Your task to perform on an android device: turn off data saver in the chrome app Image 0: 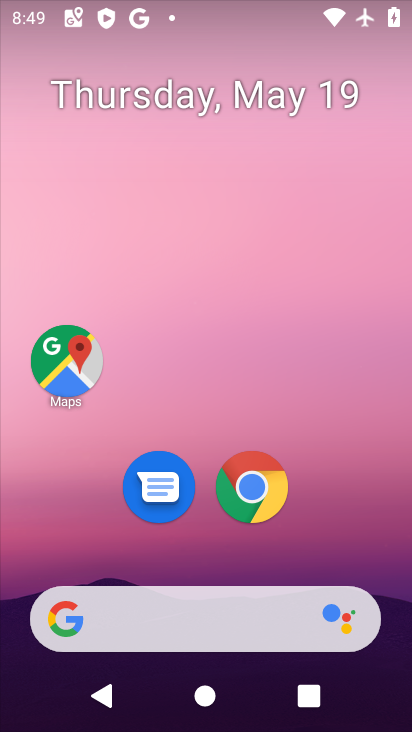
Step 0: click (231, 491)
Your task to perform on an android device: turn off data saver in the chrome app Image 1: 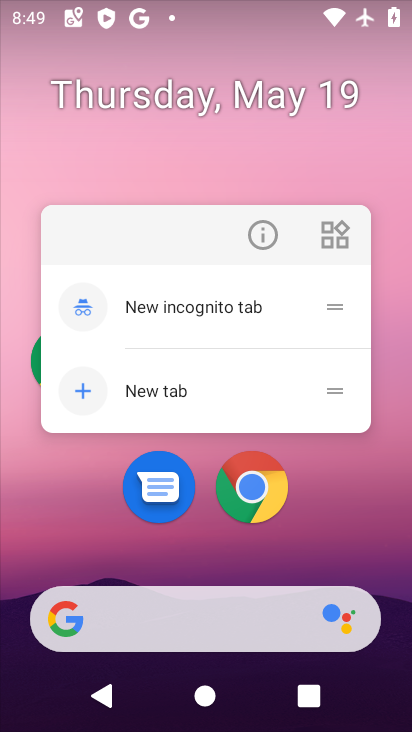
Step 1: click (251, 495)
Your task to perform on an android device: turn off data saver in the chrome app Image 2: 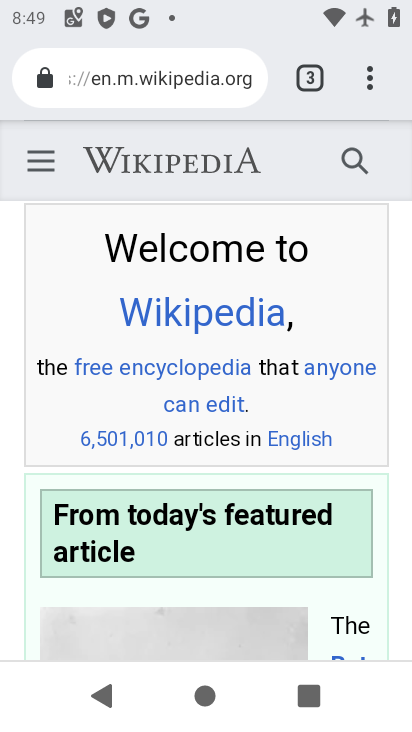
Step 2: click (371, 92)
Your task to perform on an android device: turn off data saver in the chrome app Image 3: 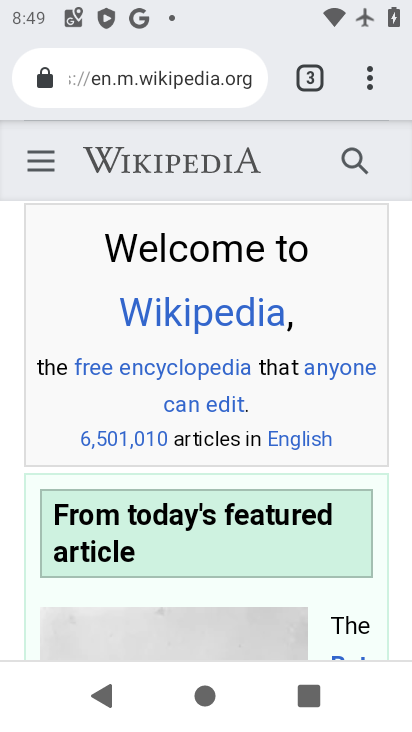
Step 3: drag from (366, 75) to (70, 553)
Your task to perform on an android device: turn off data saver in the chrome app Image 4: 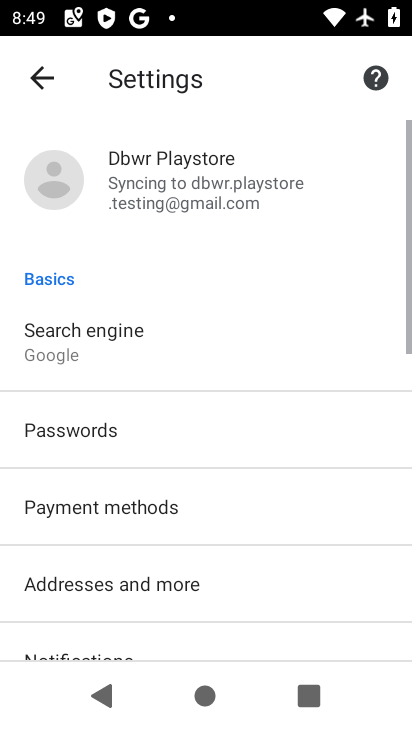
Step 4: drag from (245, 561) to (227, 106)
Your task to perform on an android device: turn off data saver in the chrome app Image 5: 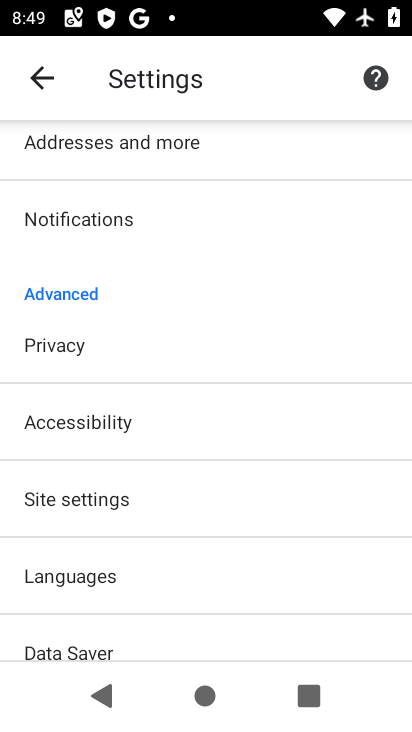
Step 5: drag from (133, 576) to (121, 434)
Your task to perform on an android device: turn off data saver in the chrome app Image 6: 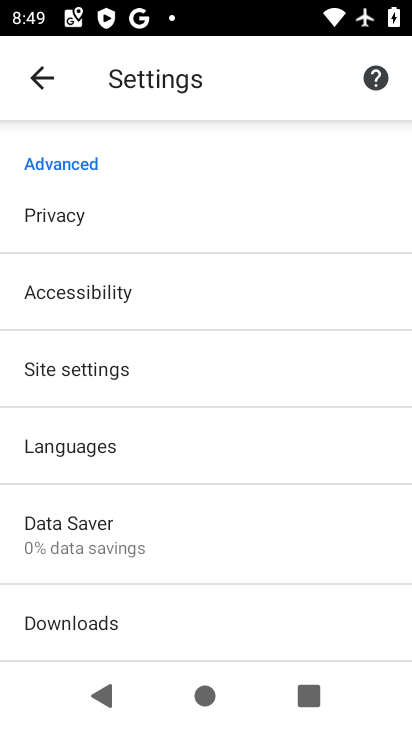
Step 6: click (99, 516)
Your task to perform on an android device: turn off data saver in the chrome app Image 7: 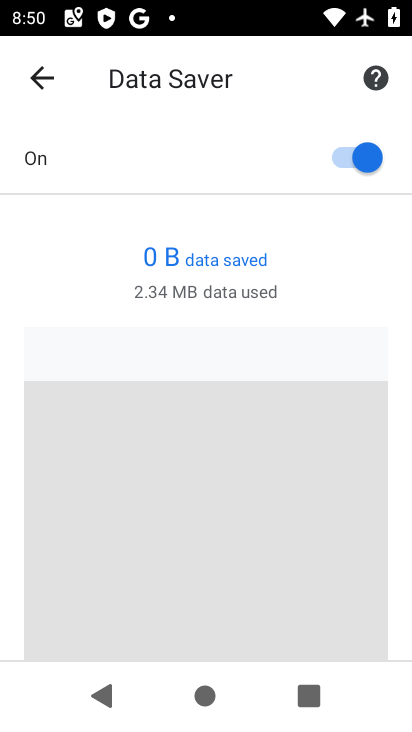
Step 7: click (367, 159)
Your task to perform on an android device: turn off data saver in the chrome app Image 8: 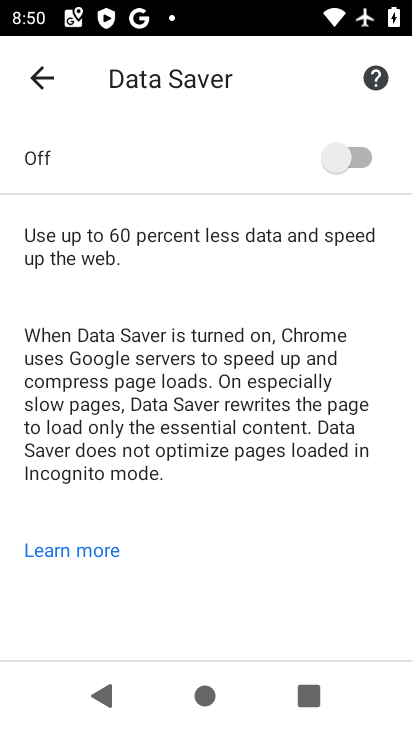
Step 8: task complete